Your task to perform on an android device: When is my next appointment? Image 0: 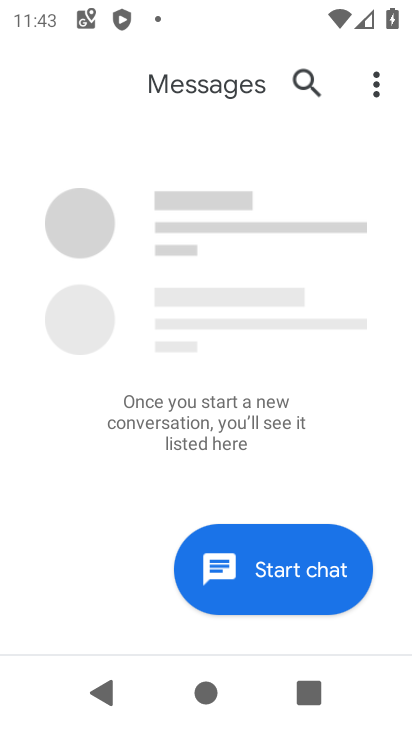
Step 0: press home button
Your task to perform on an android device: When is my next appointment? Image 1: 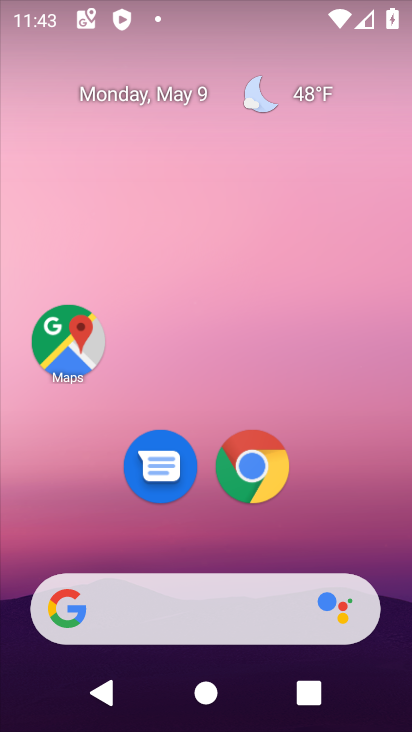
Step 1: drag from (392, 607) to (338, 34)
Your task to perform on an android device: When is my next appointment? Image 2: 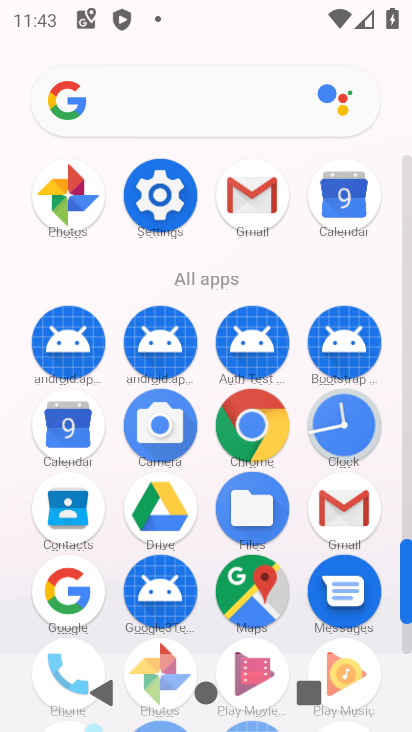
Step 2: click (69, 427)
Your task to perform on an android device: When is my next appointment? Image 3: 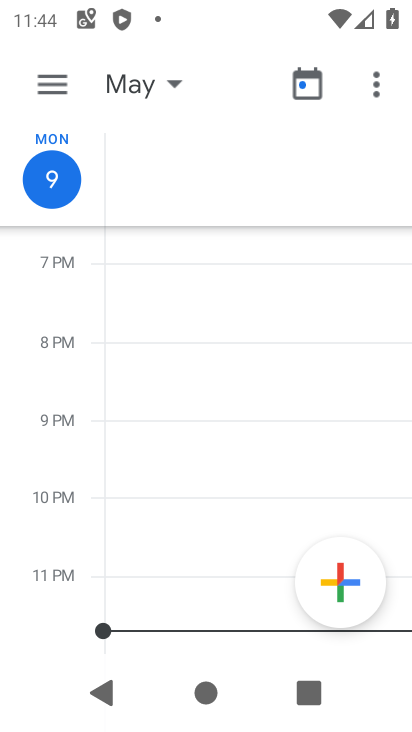
Step 3: click (51, 85)
Your task to perform on an android device: When is my next appointment? Image 4: 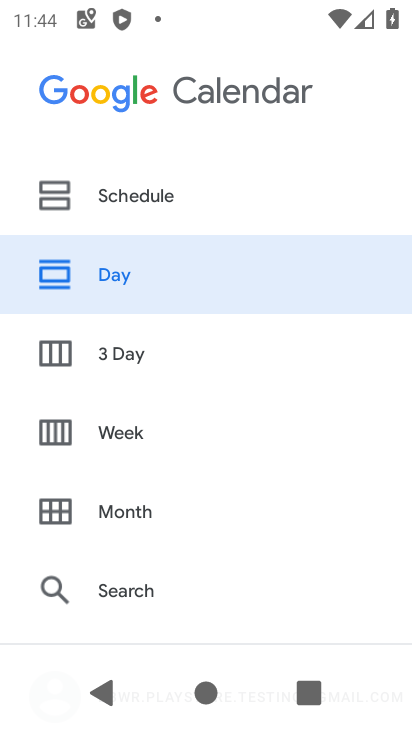
Step 4: click (115, 192)
Your task to perform on an android device: When is my next appointment? Image 5: 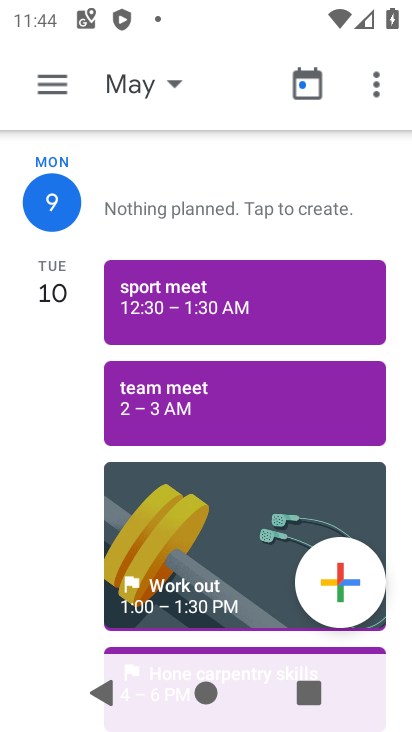
Step 5: task complete